Your task to perform on an android device: turn off location history Image 0: 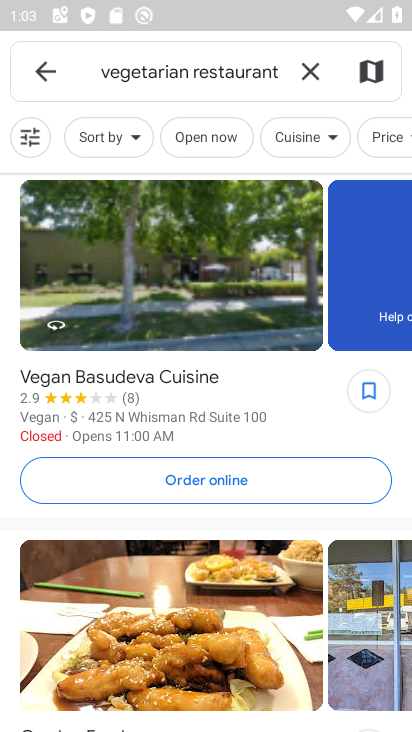
Step 0: press home button
Your task to perform on an android device: turn off location history Image 1: 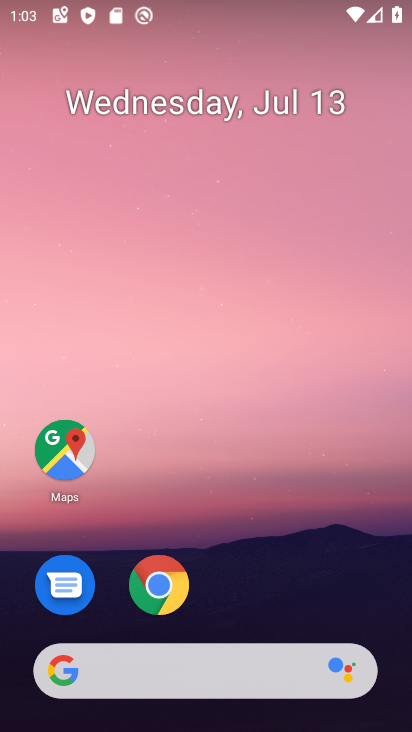
Step 1: drag from (144, 669) to (332, 126)
Your task to perform on an android device: turn off location history Image 2: 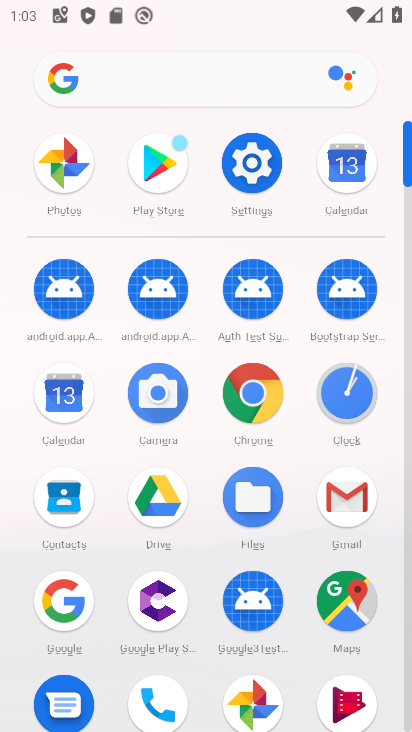
Step 2: click (342, 610)
Your task to perform on an android device: turn off location history Image 3: 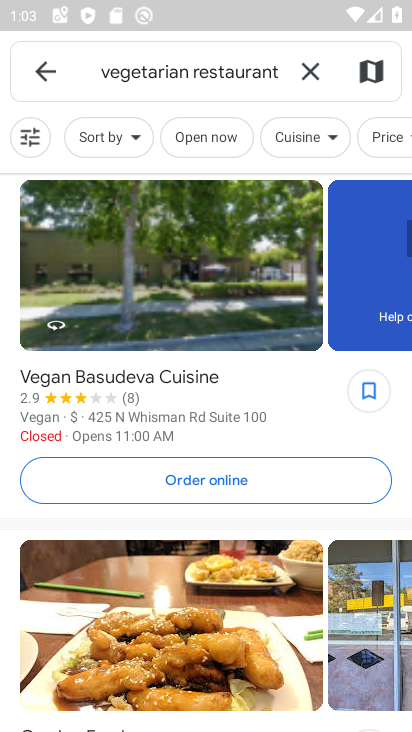
Step 3: click (48, 66)
Your task to perform on an android device: turn off location history Image 4: 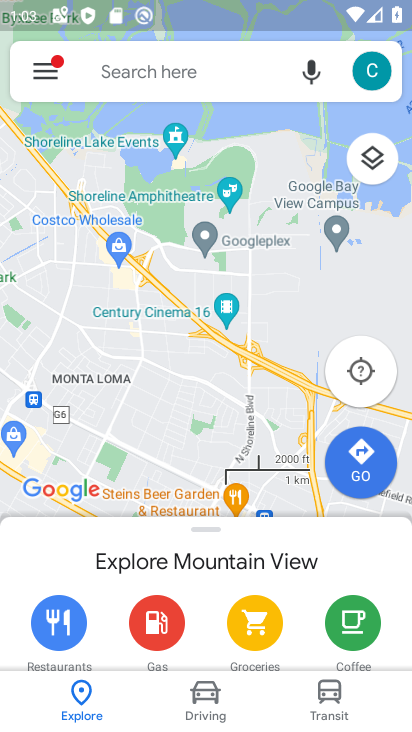
Step 4: click (40, 64)
Your task to perform on an android device: turn off location history Image 5: 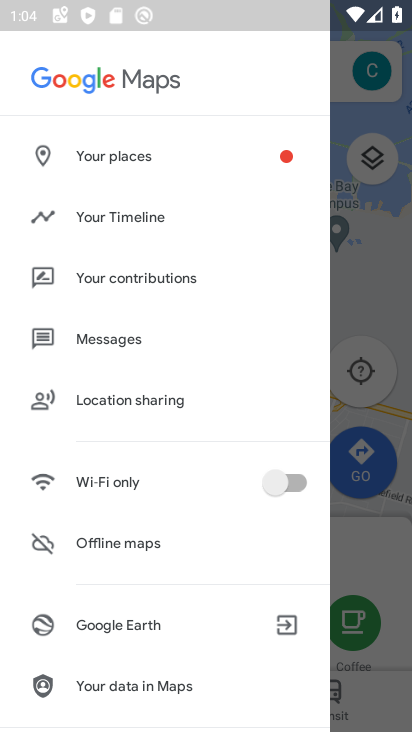
Step 5: click (137, 219)
Your task to perform on an android device: turn off location history Image 6: 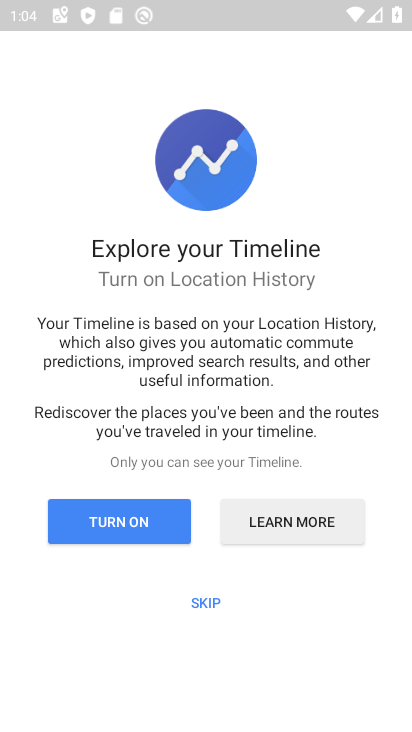
Step 6: click (212, 601)
Your task to perform on an android device: turn off location history Image 7: 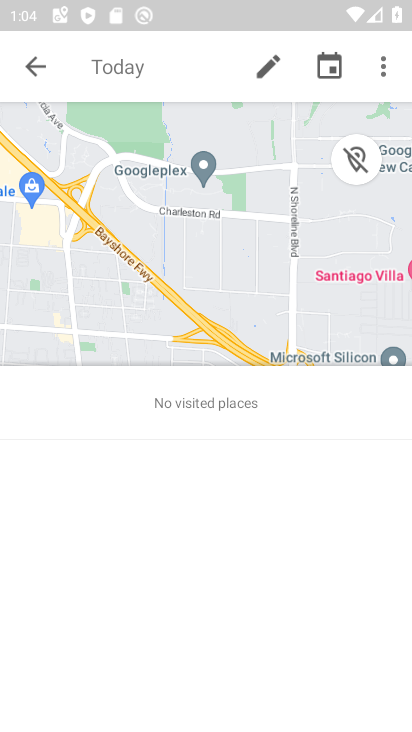
Step 7: click (381, 65)
Your task to perform on an android device: turn off location history Image 8: 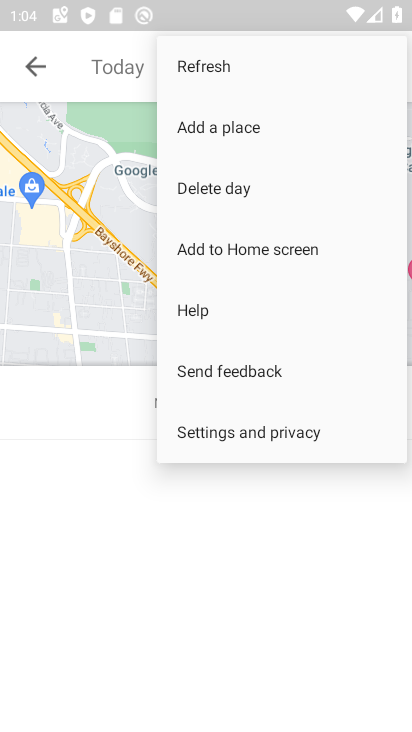
Step 8: click (247, 431)
Your task to perform on an android device: turn off location history Image 9: 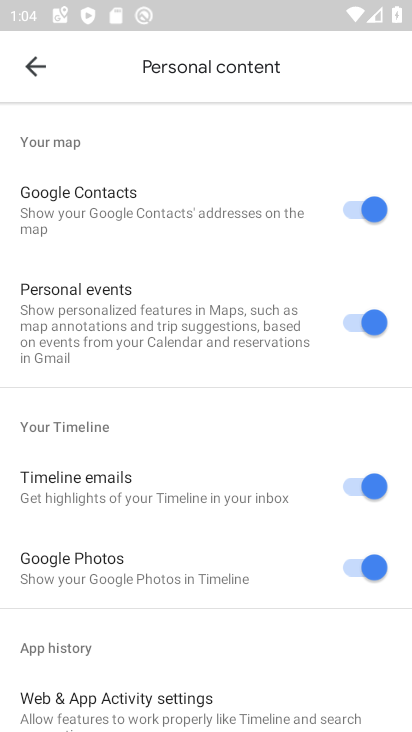
Step 9: drag from (220, 629) to (315, 146)
Your task to perform on an android device: turn off location history Image 10: 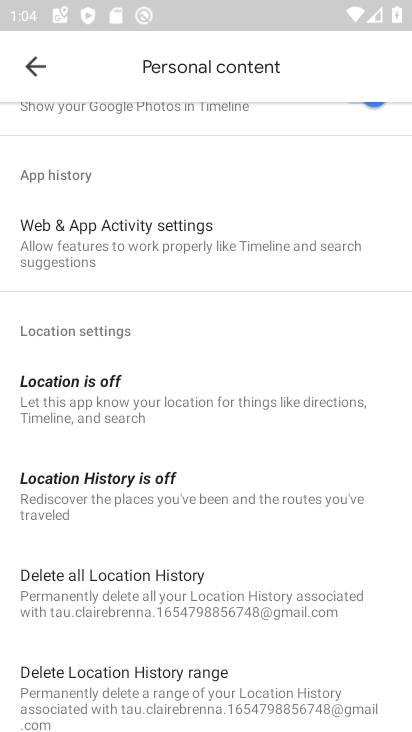
Step 10: click (150, 491)
Your task to perform on an android device: turn off location history Image 11: 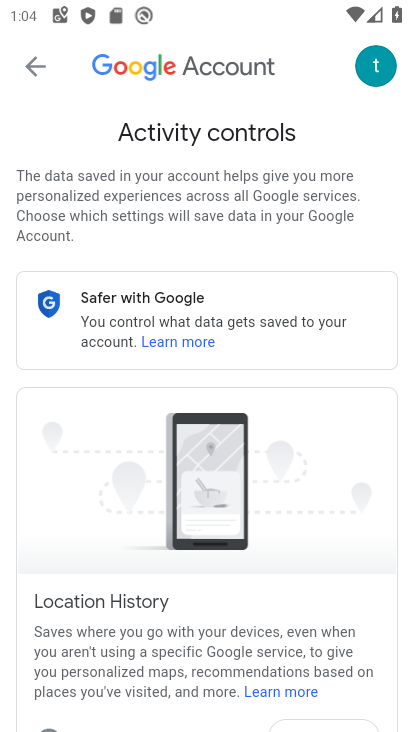
Step 11: task complete